Your task to perform on an android device: Open wifi settings Image 0: 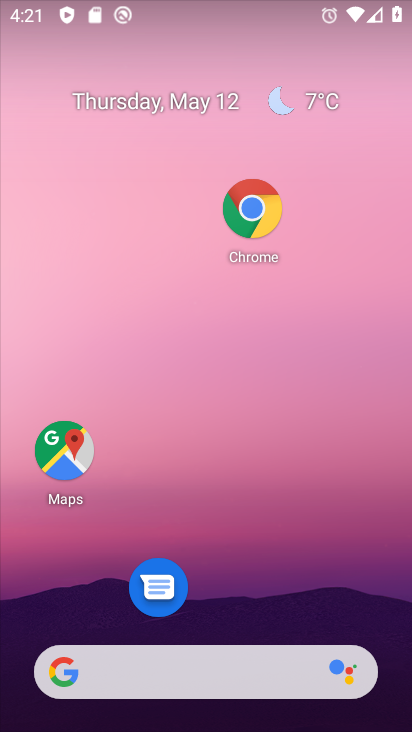
Step 0: drag from (251, 556) to (273, 141)
Your task to perform on an android device: Open wifi settings Image 1: 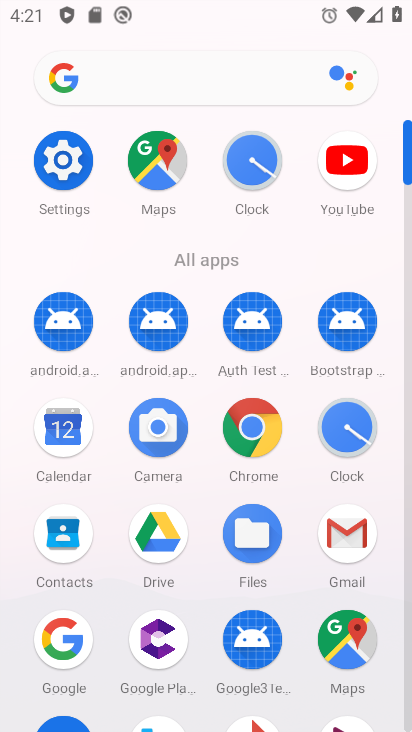
Step 1: click (39, 171)
Your task to perform on an android device: Open wifi settings Image 2: 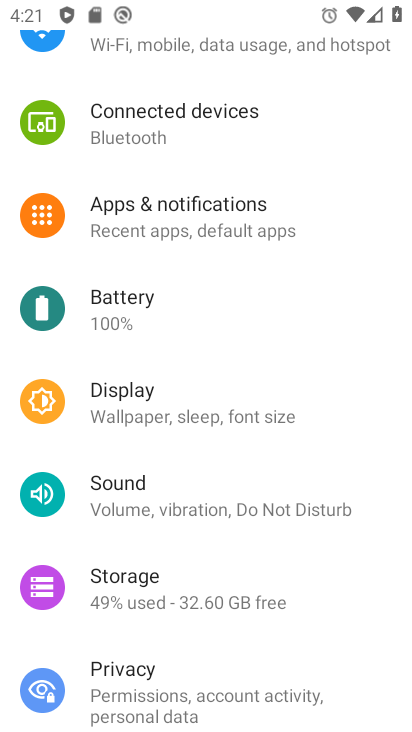
Step 2: drag from (193, 149) to (193, 550)
Your task to perform on an android device: Open wifi settings Image 3: 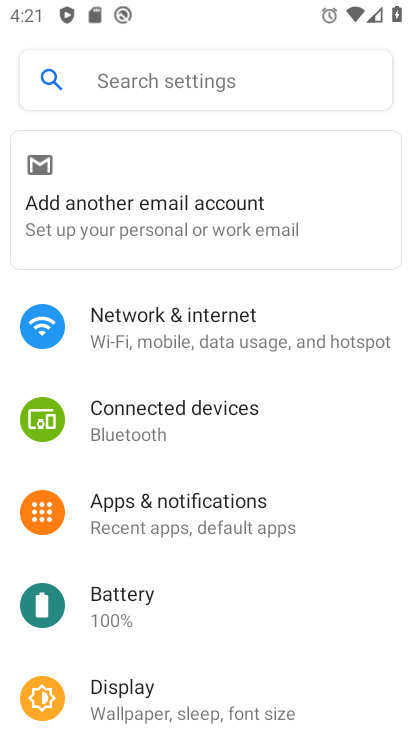
Step 3: drag from (239, 202) to (202, 517)
Your task to perform on an android device: Open wifi settings Image 4: 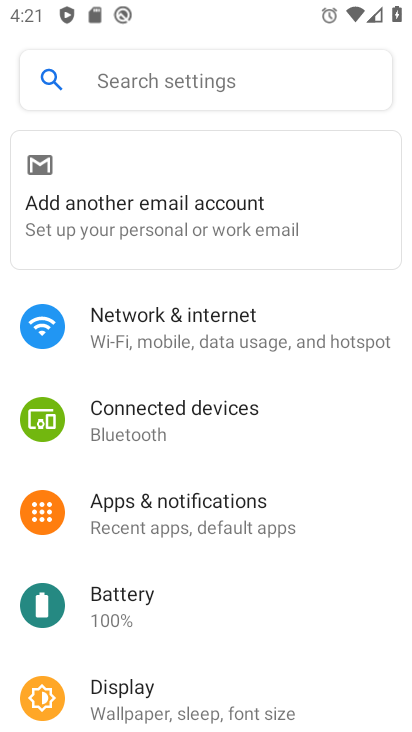
Step 4: click (148, 332)
Your task to perform on an android device: Open wifi settings Image 5: 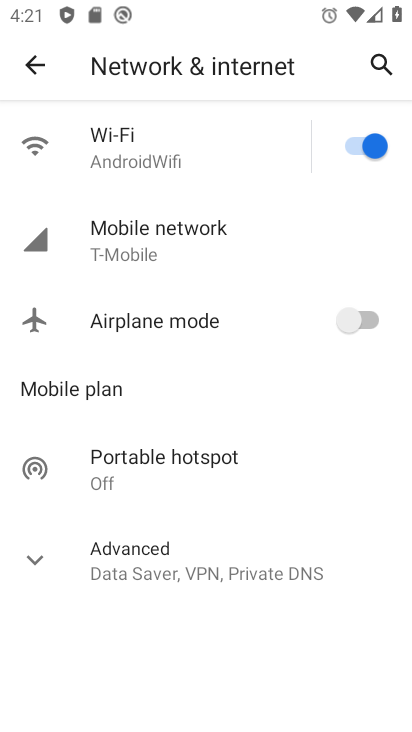
Step 5: click (132, 160)
Your task to perform on an android device: Open wifi settings Image 6: 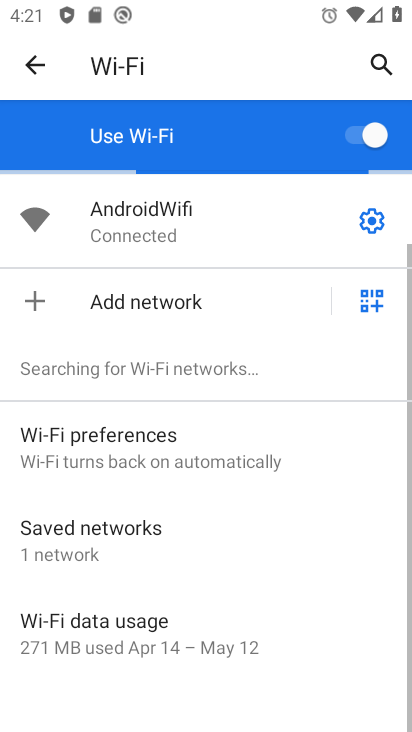
Step 6: task complete